Your task to perform on an android device: What's the price of the Galaxy phone? Image 0: 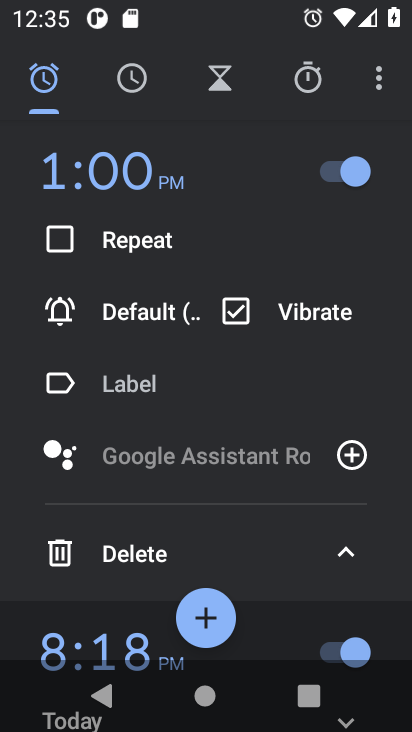
Step 0: press home button
Your task to perform on an android device: What's the price of the Galaxy phone? Image 1: 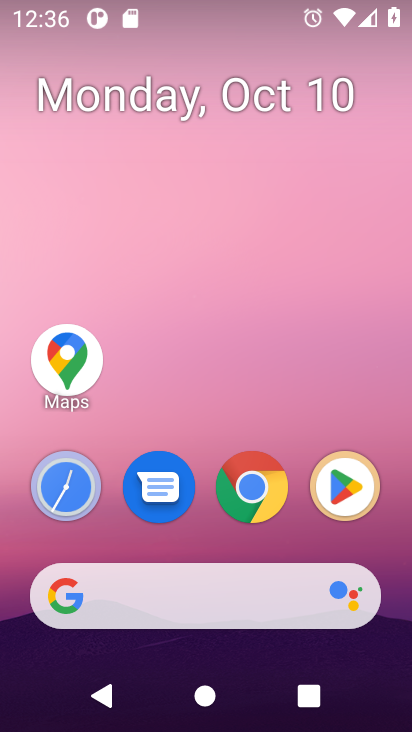
Step 1: drag from (204, 547) to (220, 61)
Your task to perform on an android device: What's the price of the Galaxy phone? Image 2: 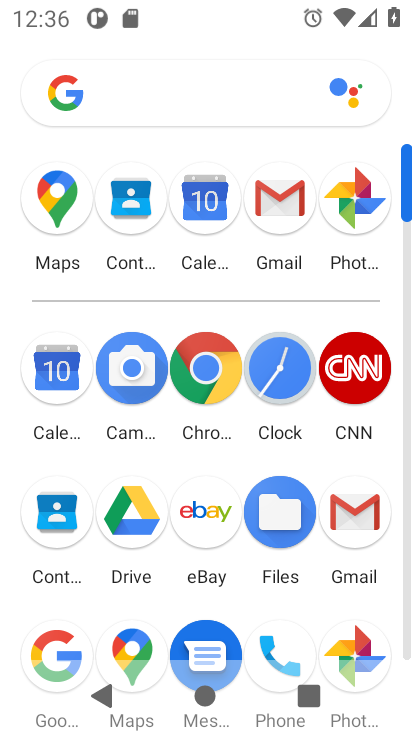
Step 2: drag from (161, 553) to (206, 320)
Your task to perform on an android device: What's the price of the Galaxy phone? Image 3: 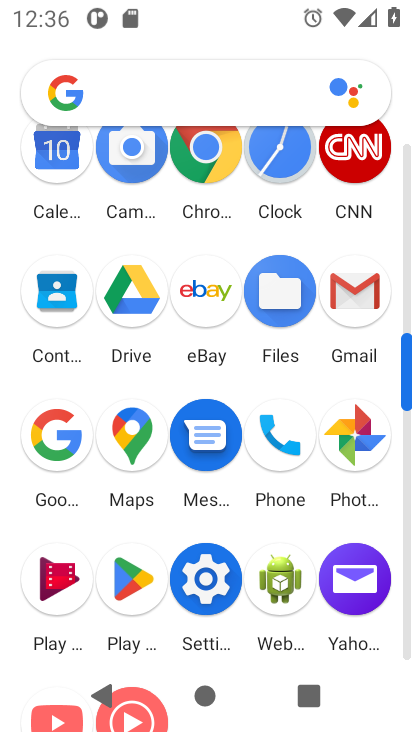
Step 3: click (206, 147)
Your task to perform on an android device: What's the price of the Galaxy phone? Image 4: 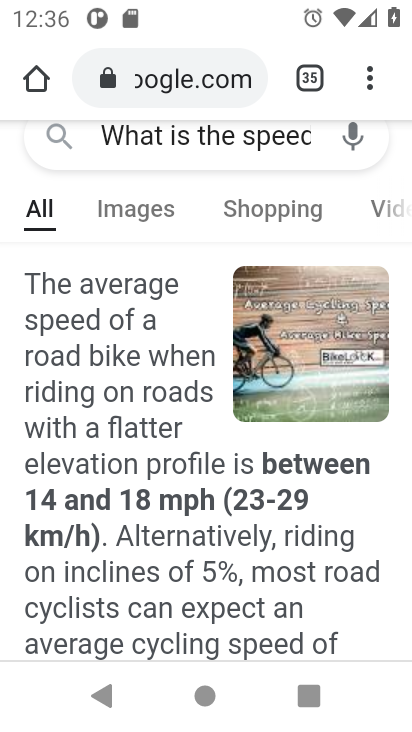
Step 4: click (206, 147)
Your task to perform on an android device: What's the price of the Galaxy phone? Image 5: 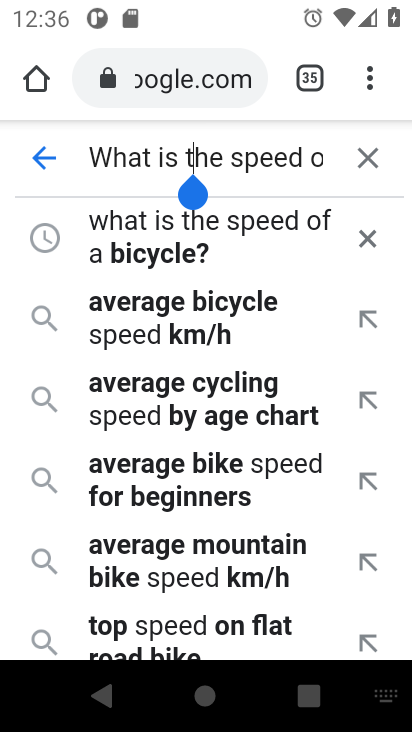
Step 5: click (369, 159)
Your task to perform on an android device: What's the price of the Galaxy phone? Image 6: 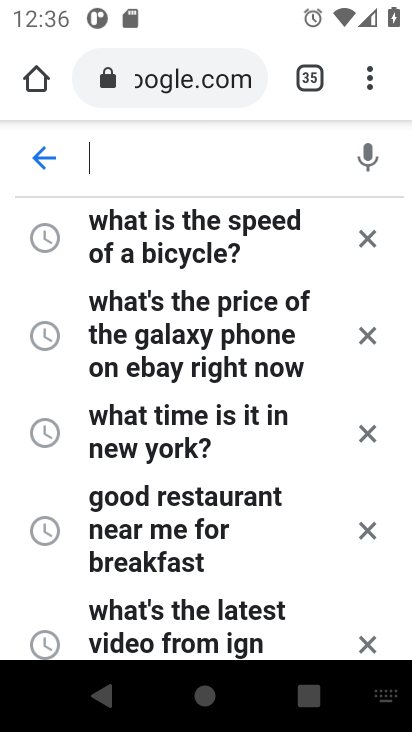
Step 6: type "What's the price of the Galaxy phone?"
Your task to perform on an android device: What's the price of the Galaxy phone? Image 7: 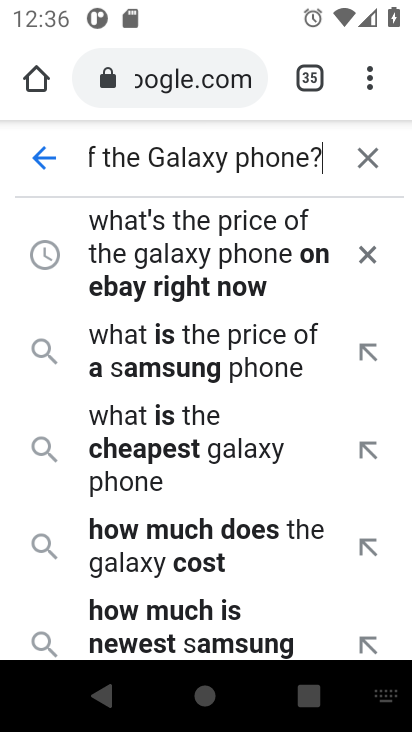
Step 7: type ""
Your task to perform on an android device: What's the price of the Galaxy phone? Image 8: 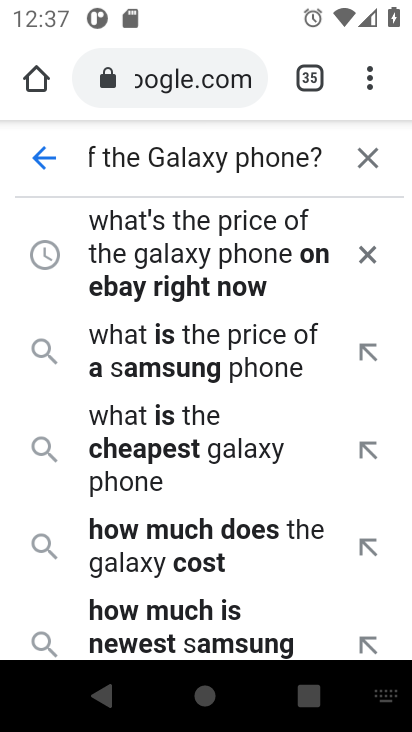
Step 8: click (219, 246)
Your task to perform on an android device: What's the price of the Galaxy phone? Image 9: 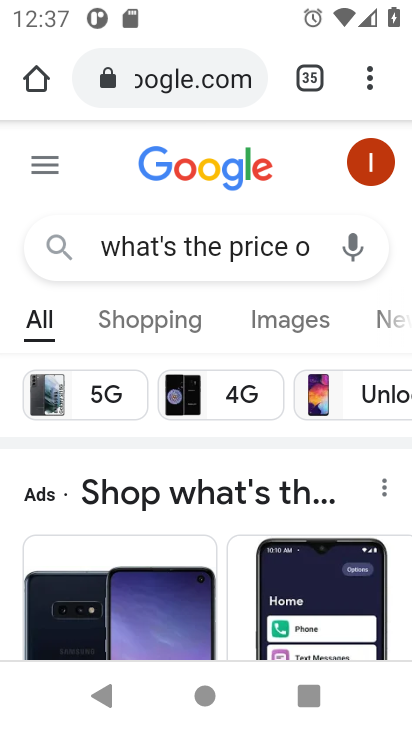
Step 9: task complete